Your task to perform on an android device: open app "Reddit" (install if not already installed) Image 0: 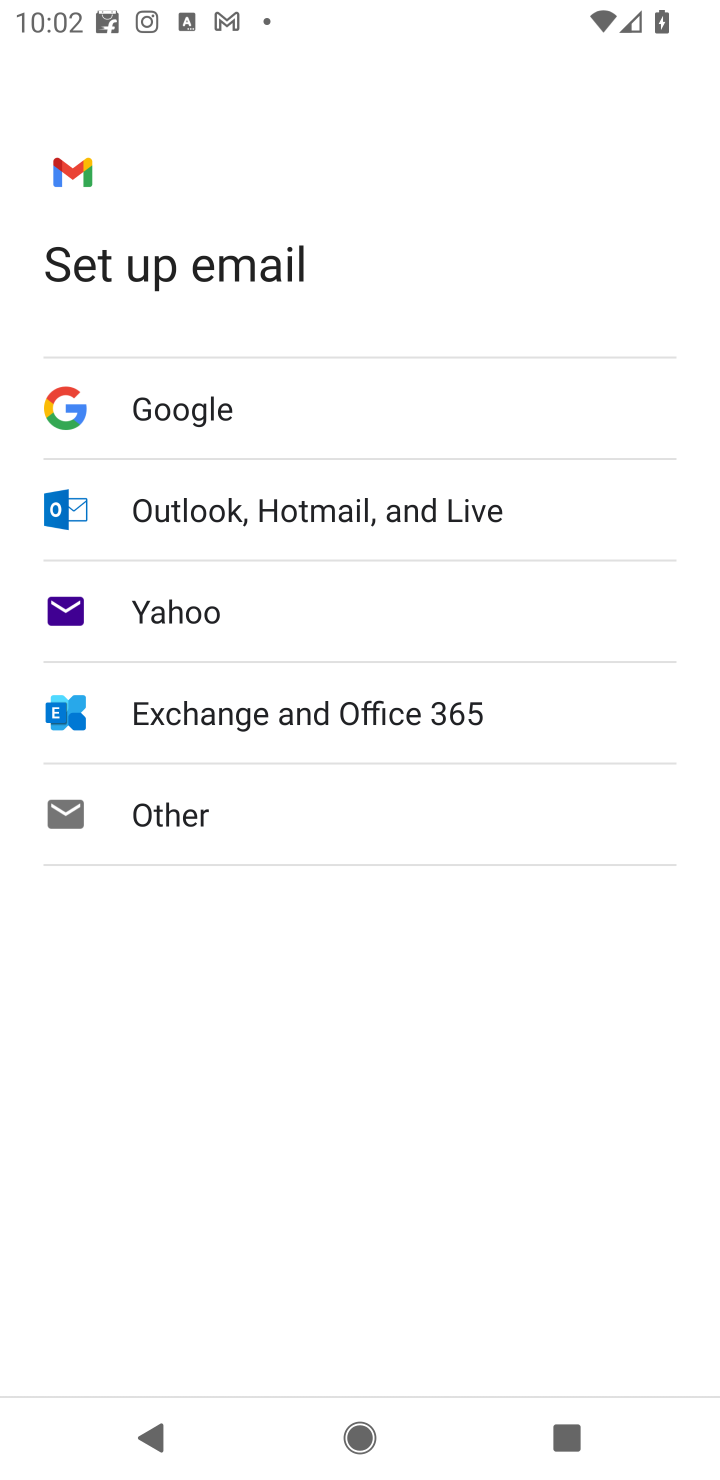
Step 0: press home button
Your task to perform on an android device: open app "Reddit" (install if not already installed) Image 1: 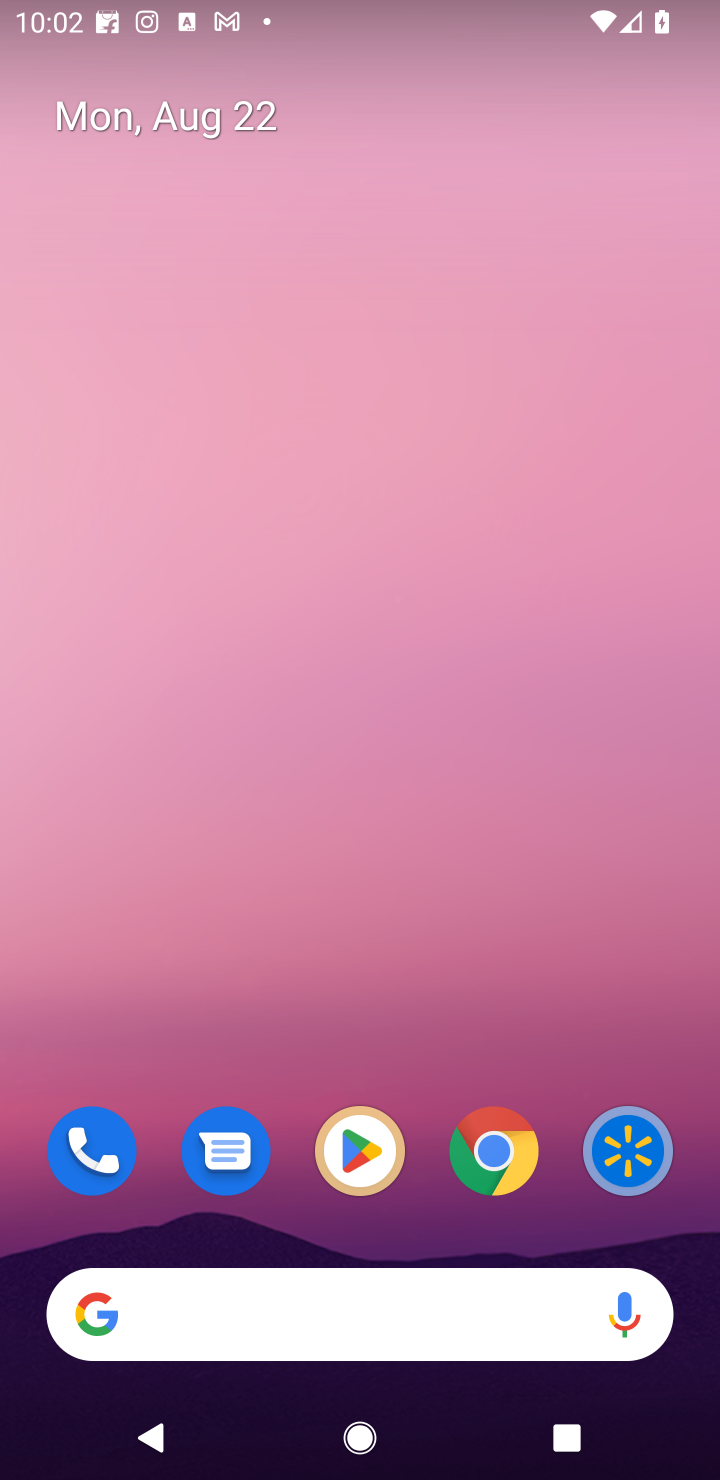
Step 1: click (365, 1159)
Your task to perform on an android device: open app "Reddit" (install if not already installed) Image 2: 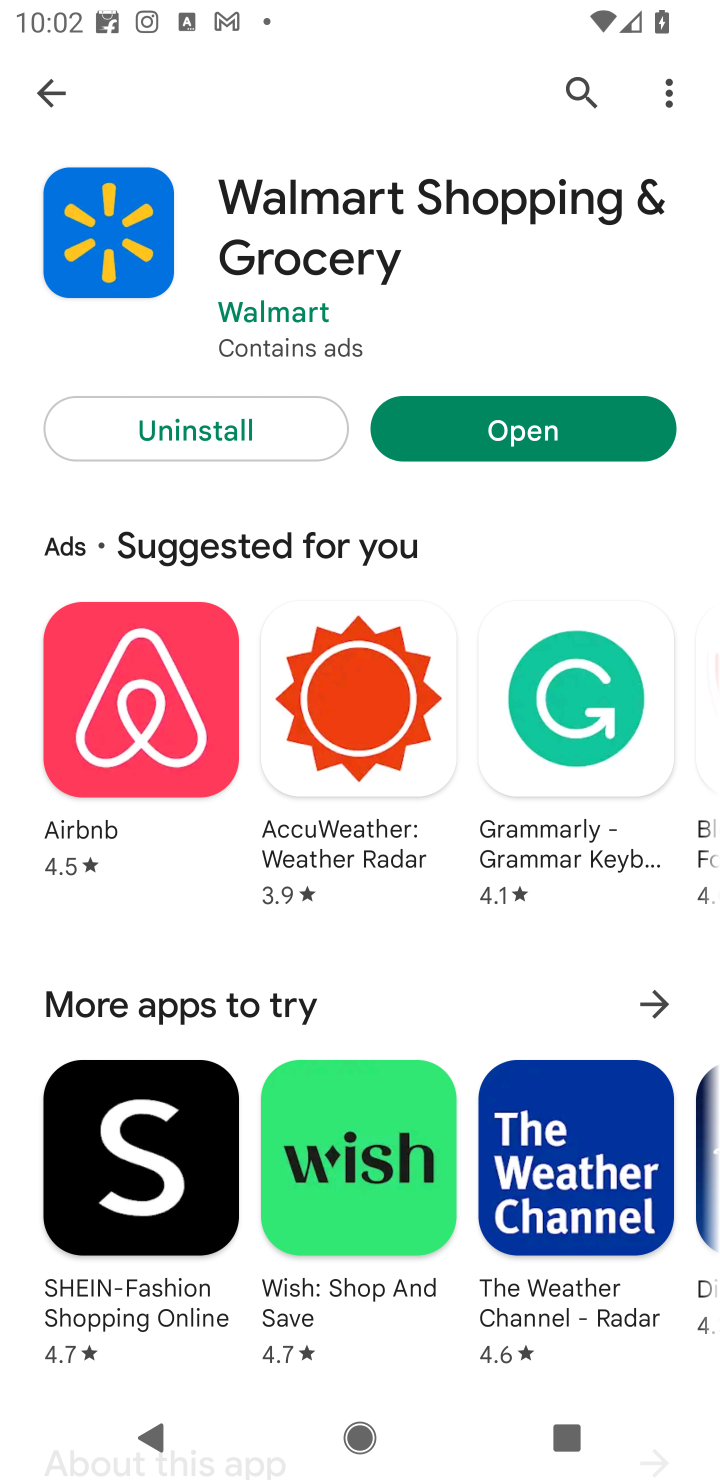
Step 2: click (570, 86)
Your task to perform on an android device: open app "Reddit" (install if not already installed) Image 3: 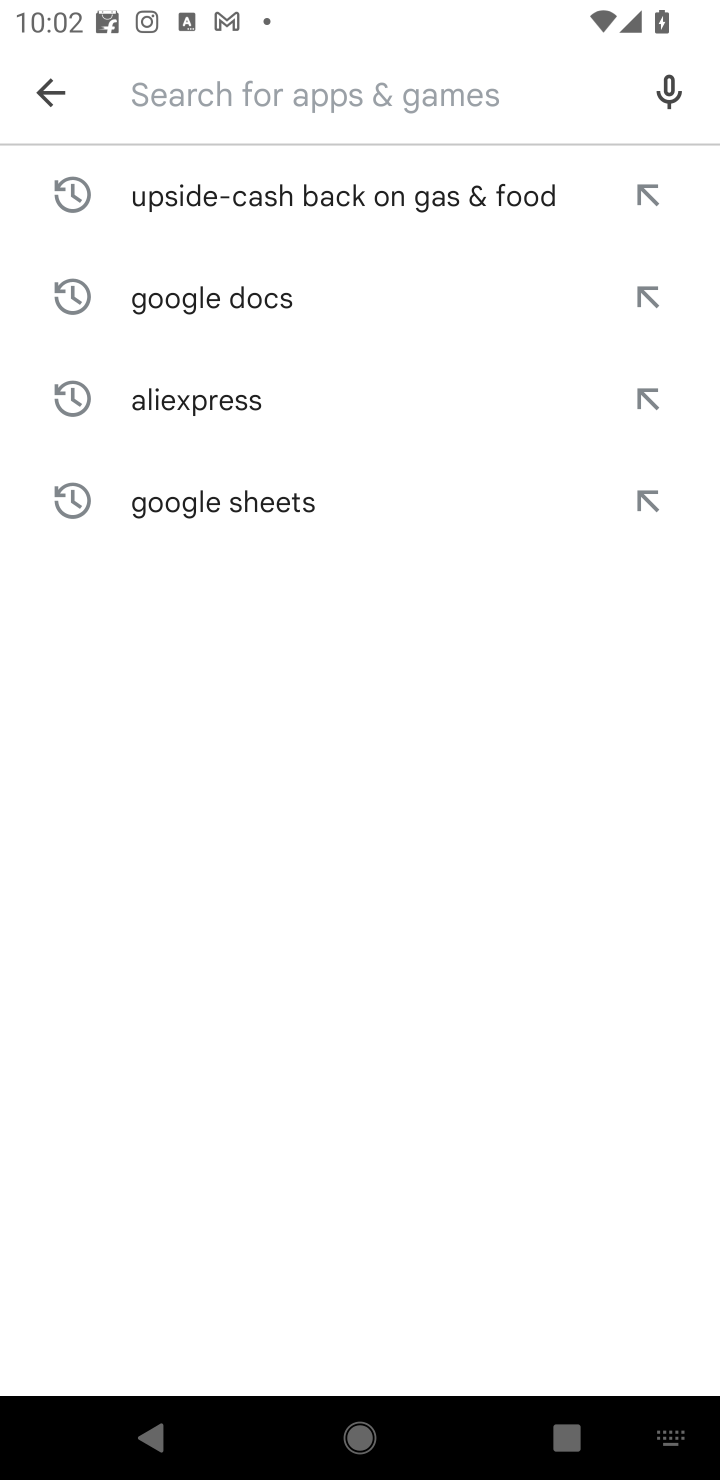
Step 3: type "Reddit"
Your task to perform on an android device: open app "Reddit" (install if not already installed) Image 4: 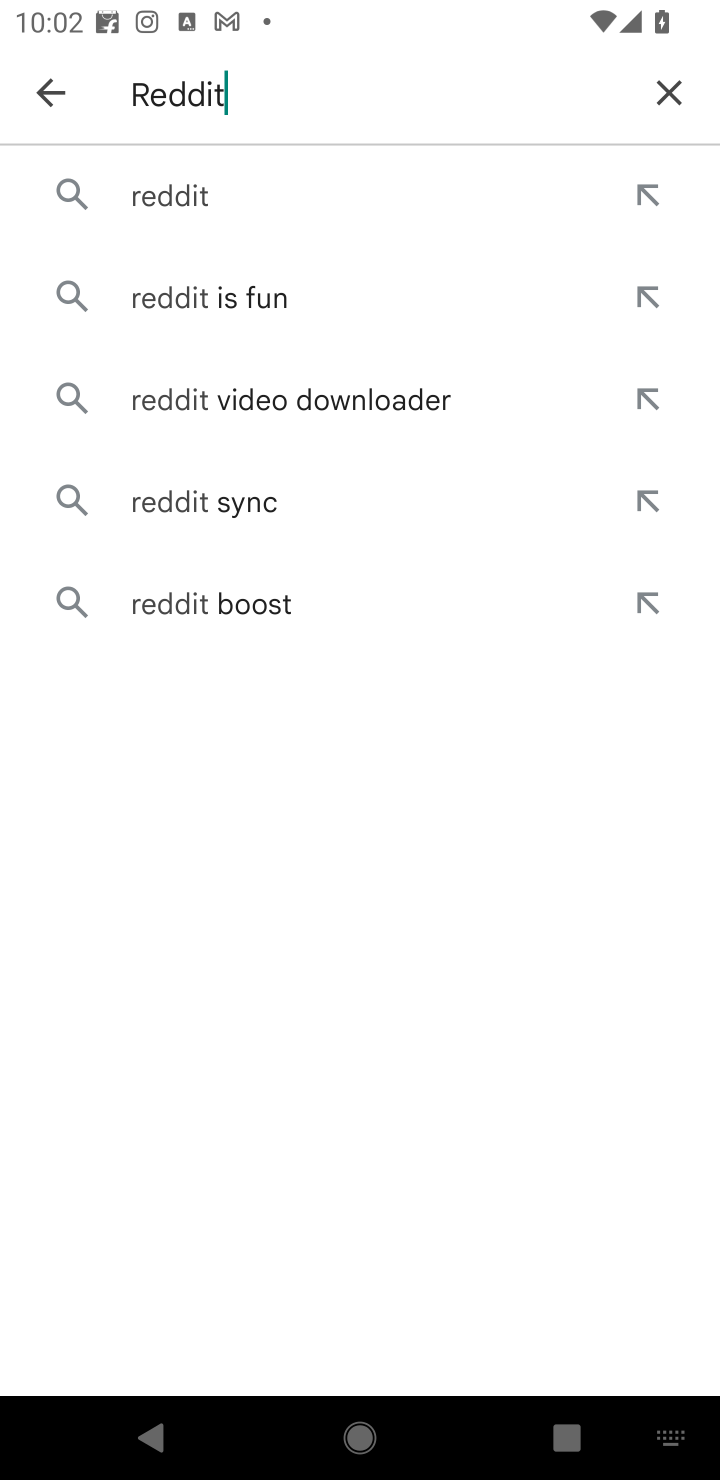
Step 4: click (197, 192)
Your task to perform on an android device: open app "Reddit" (install if not already installed) Image 5: 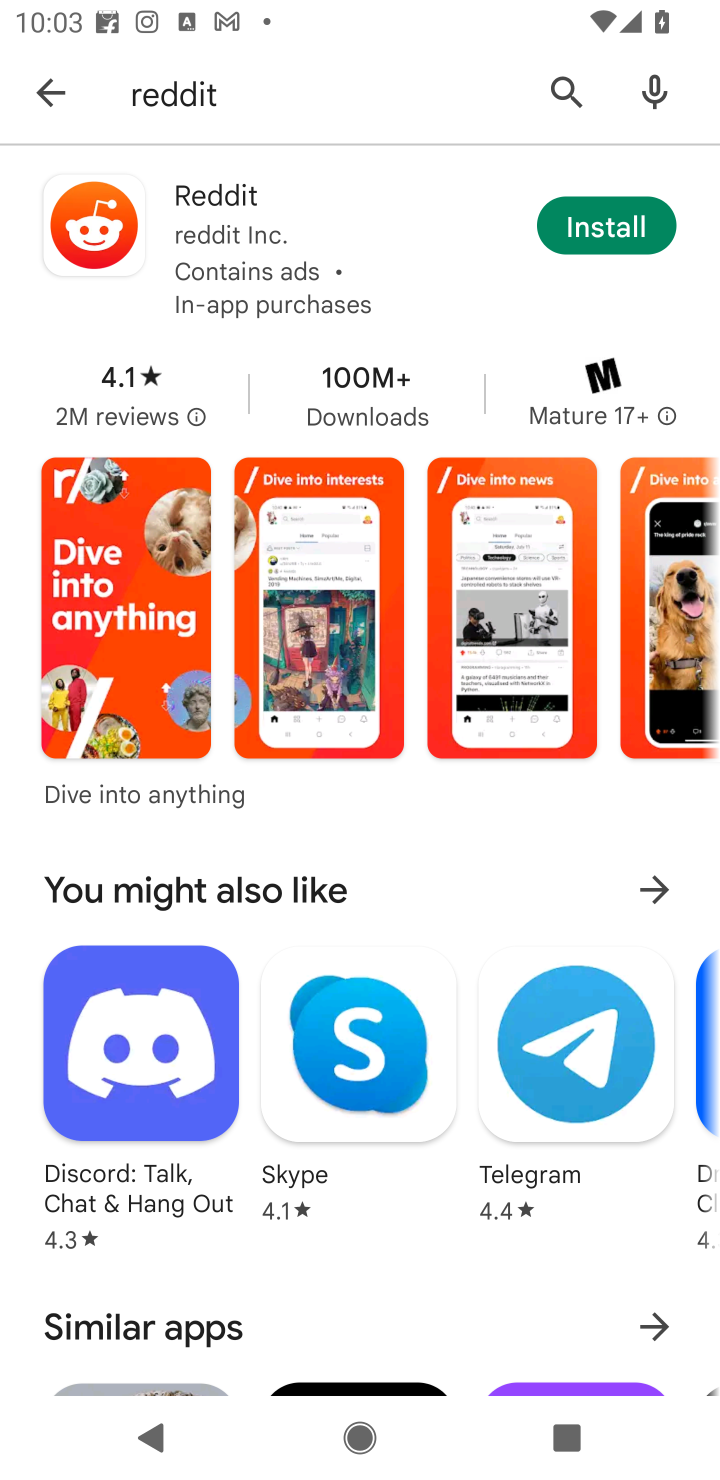
Step 5: click (619, 232)
Your task to perform on an android device: open app "Reddit" (install if not already installed) Image 6: 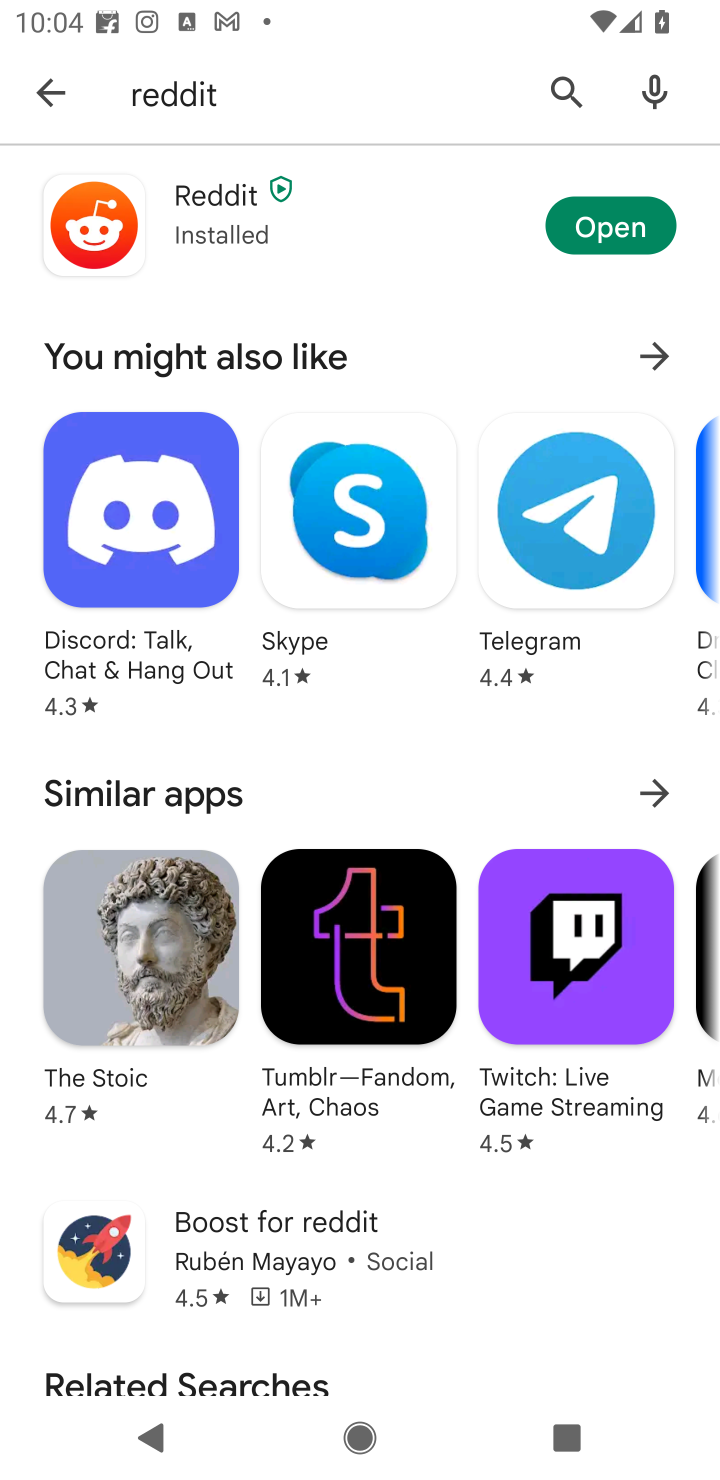
Step 6: click (586, 224)
Your task to perform on an android device: open app "Reddit" (install if not already installed) Image 7: 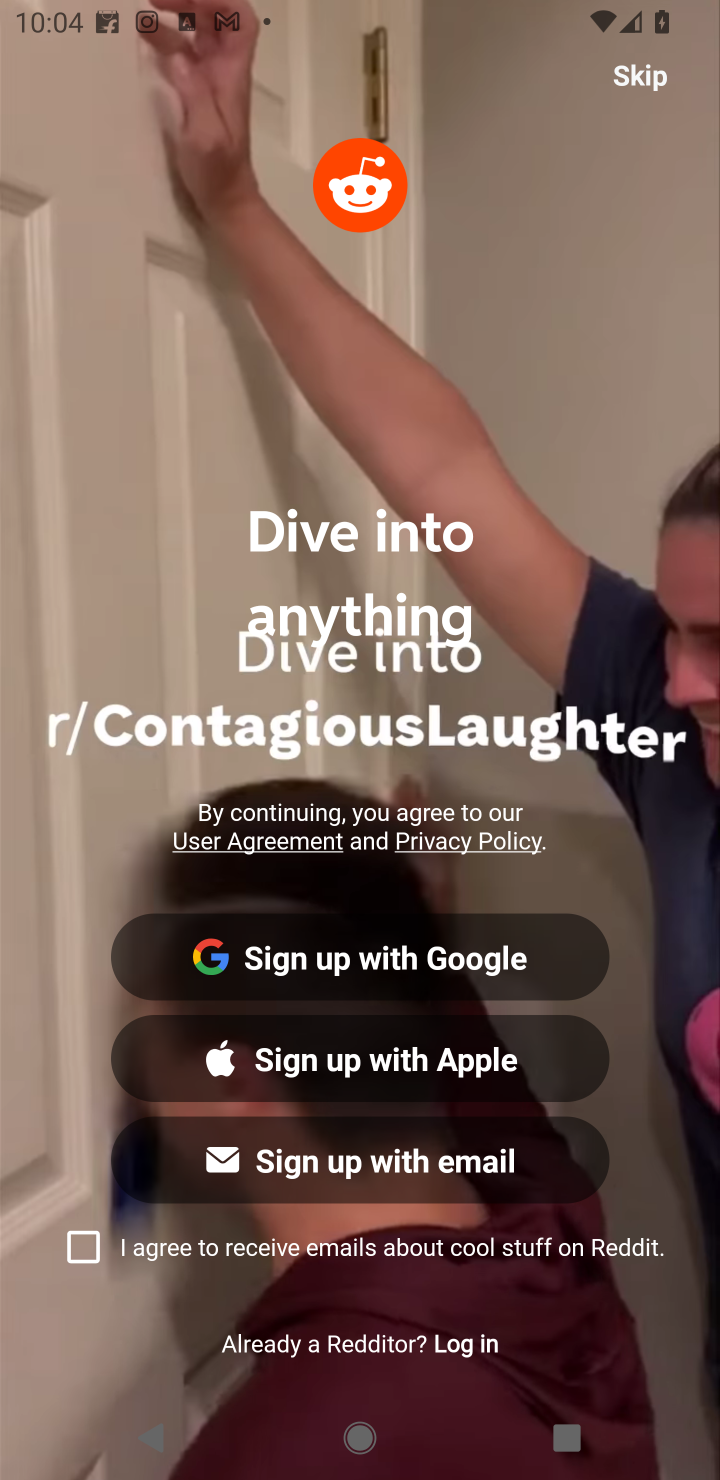
Step 7: task complete